Your task to perform on an android device: star an email in the gmail app Image 0: 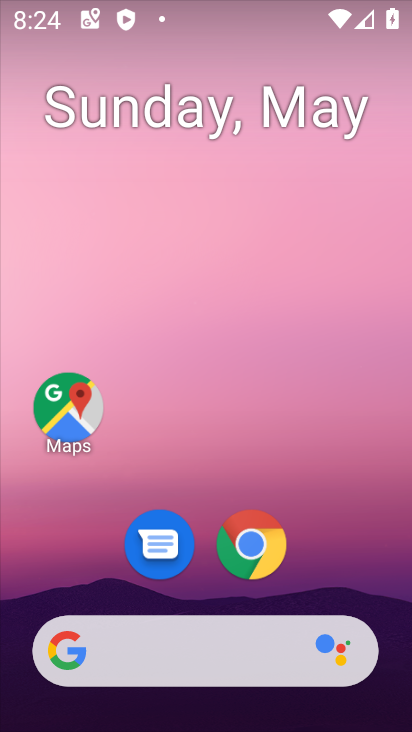
Step 0: drag from (317, 513) to (249, 35)
Your task to perform on an android device: star an email in the gmail app Image 1: 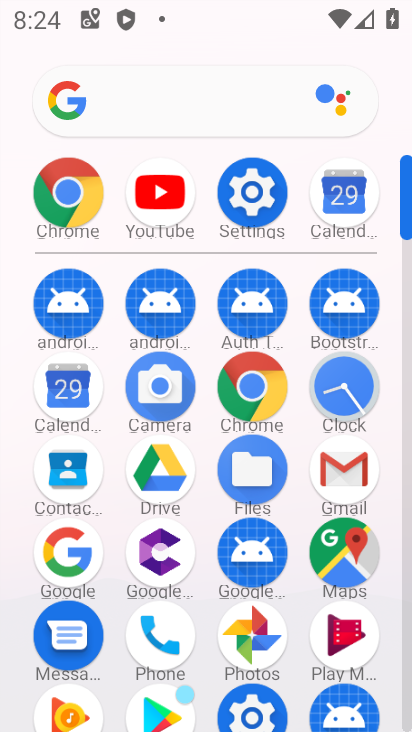
Step 1: drag from (16, 548) to (23, 174)
Your task to perform on an android device: star an email in the gmail app Image 2: 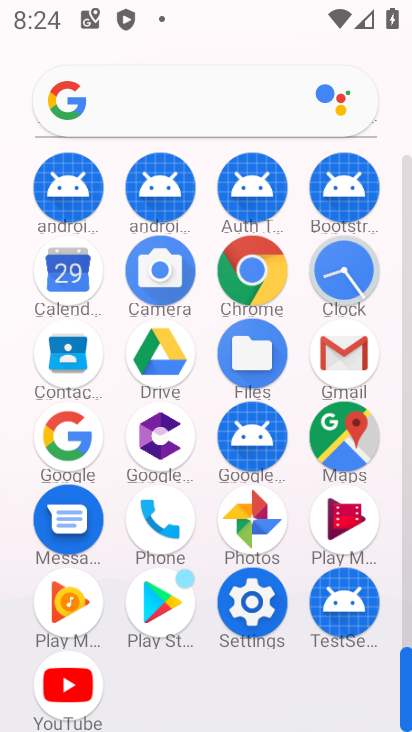
Step 2: click (348, 343)
Your task to perform on an android device: star an email in the gmail app Image 3: 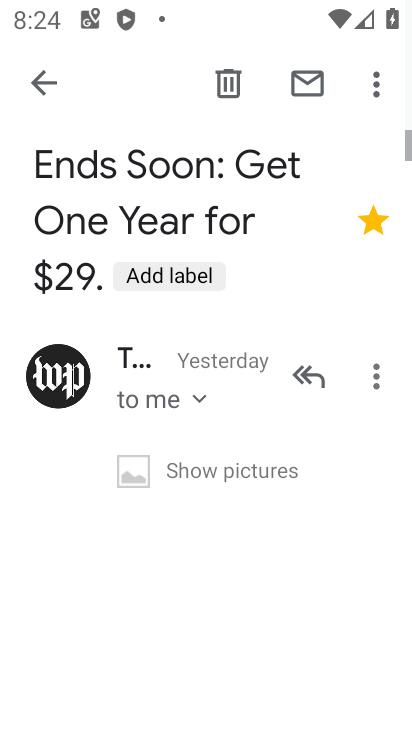
Step 3: click (41, 88)
Your task to perform on an android device: star an email in the gmail app Image 4: 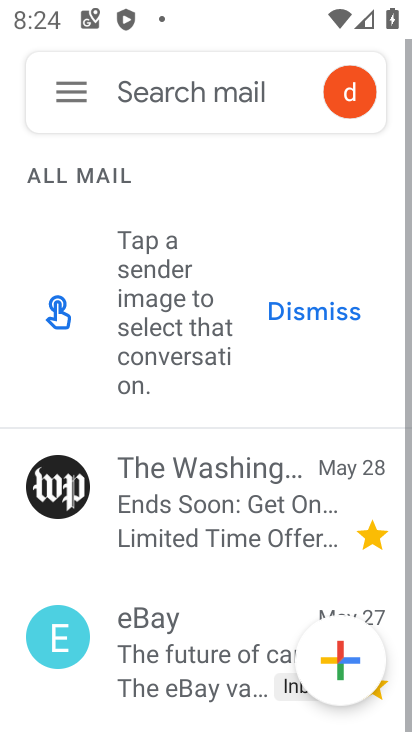
Step 4: click (62, 80)
Your task to perform on an android device: star an email in the gmail app Image 5: 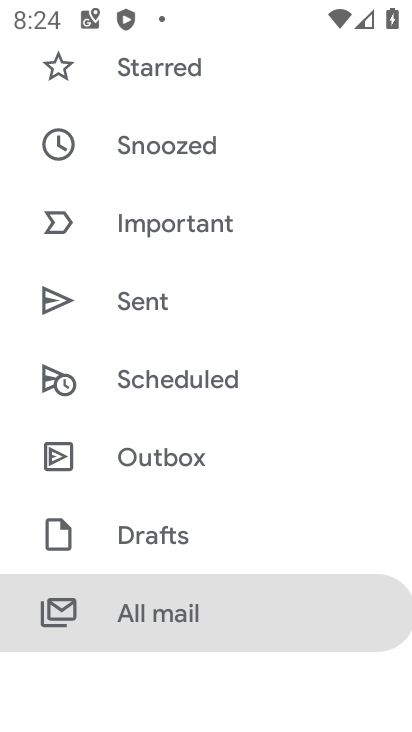
Step 5: drag from (332, 167) to (301, 507)
Your task to perform on an android device: star an email in the gmail app Image 6: 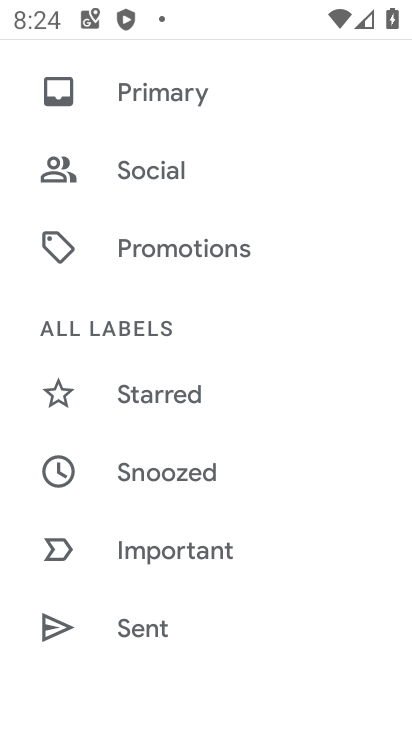
Step 6: click (148, 388)
Your task to perform on an android device: star an email in the gmail app Image 7: 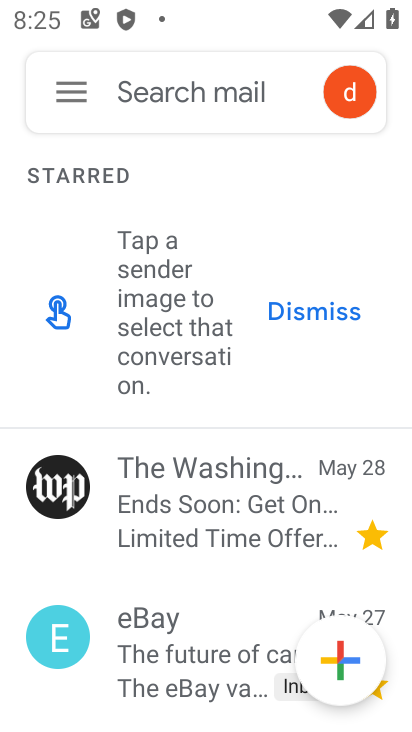
Step 7: drag from (173, 663) to (223, 243)
Your task to perform on an android device: star an email in the gmail app Image 8: 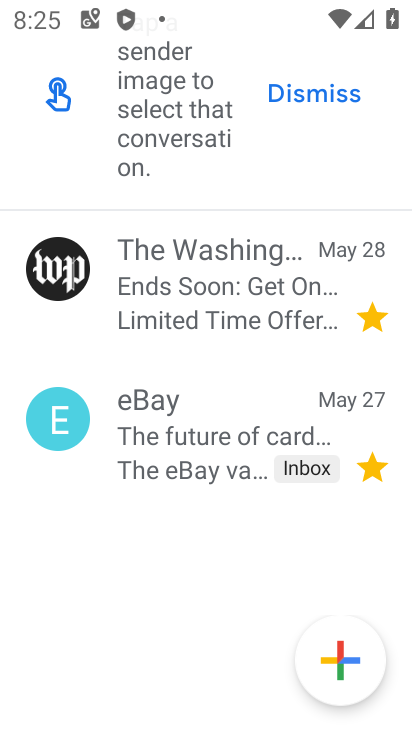
Step 8: click (188, 434)
Your task to perform on an android device: star an email in the gmail app Image 9: 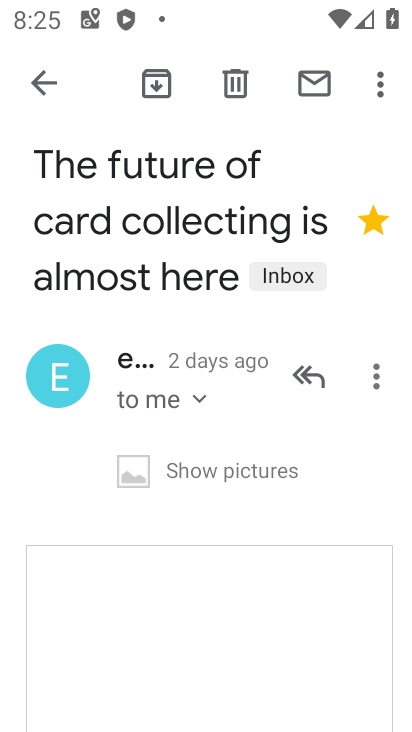
Step 9: task complete